Your task to perform on an android device: toggle priority inbox in the gmail app Image 0: 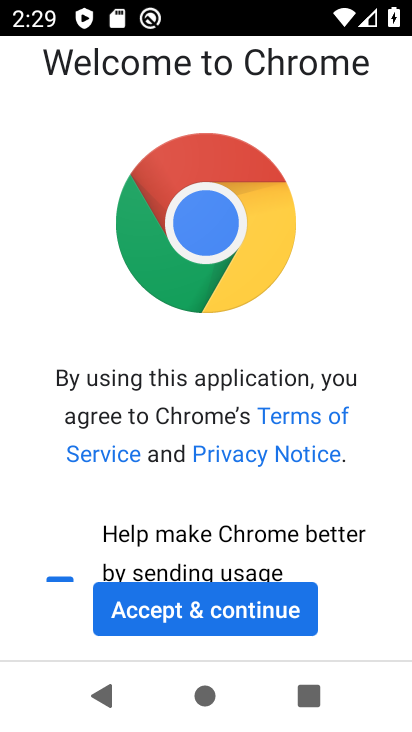
Step 0: press home button
Your task to perform on an android device: toggle priority inbox in the gmail app Image 1: 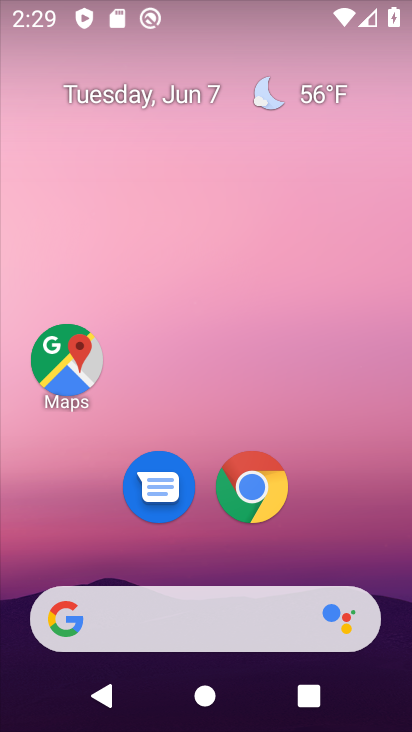
Step 1: drag from (310, 523) to (309, 469)
Your task to perform on an android device: toggle priority inbox in the gmail app Image 2: 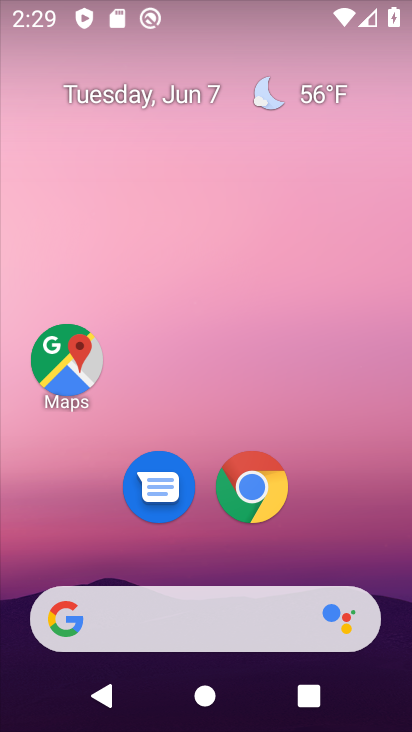
Step 2: drag from (347, 472) to (372, 16)
Your task to perform on an android device: toggle priority inbox in the gmail app Image 3: 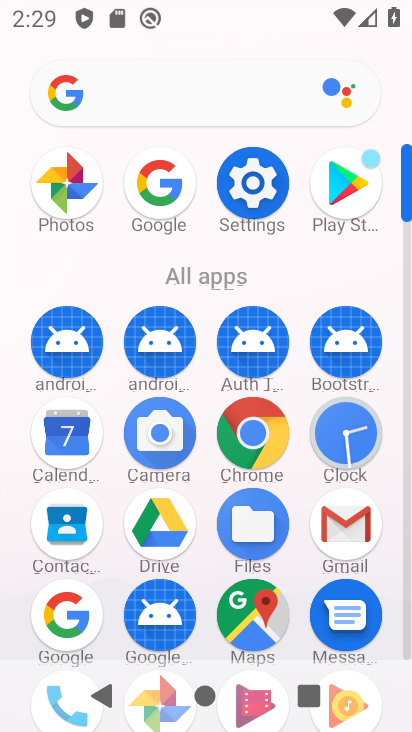
Step 3: click (332, 533)
Your task to perform on an android device: toggle priority inbox in the gmail app Image 4: 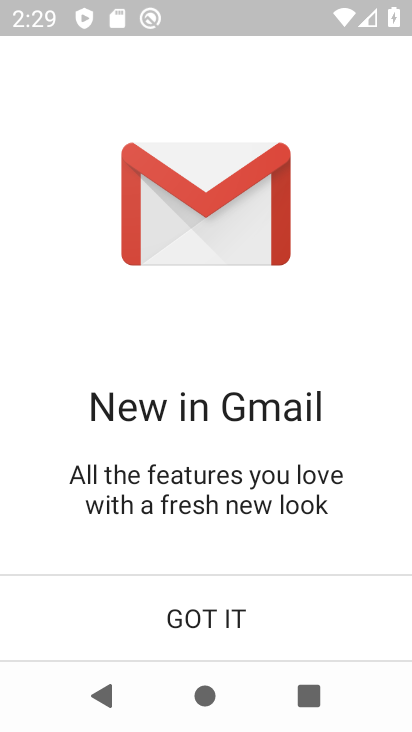
Step 4: click (198, 624)
Your task to perform on an android device: toggle priority inbox in the gmail app Image 5: 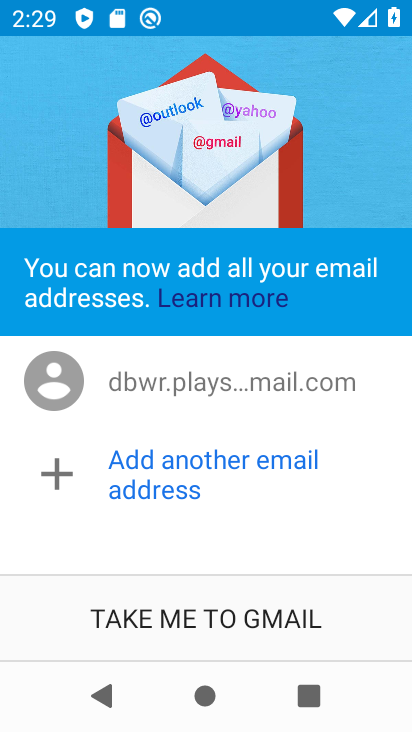
Step 5: click (313, 610)
Your task to perform on an android device: toggle priority inbox in the gmail app Image 6: 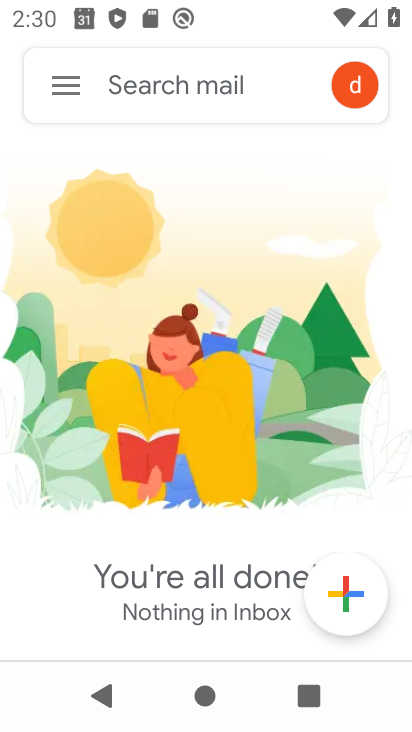
Step 6: press home button
Your task to perform on an android device: toggle priority inbox in the gmail app Image 7: 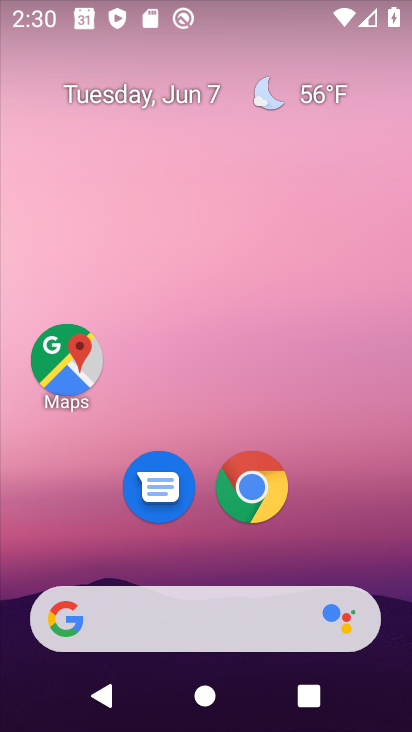
Step 7: drag from (358, 532) to (339, 134)
Your task to perform on an android device: toggle priority inbox in the gmail app Image 8: 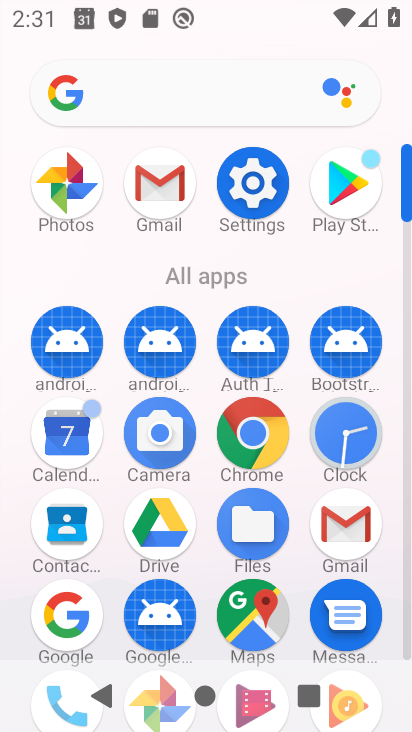
Step 8: click (148, 188)
Your task to perform on an android device: toggle priority inbox in the gmail app Image 9: 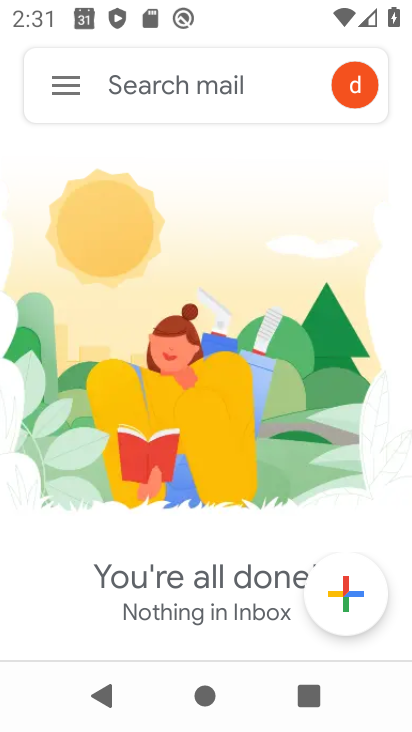
Step 9: click (69, 82)
Your task to perform on an android device: toggle priority inbox in the gmail app Image 10: 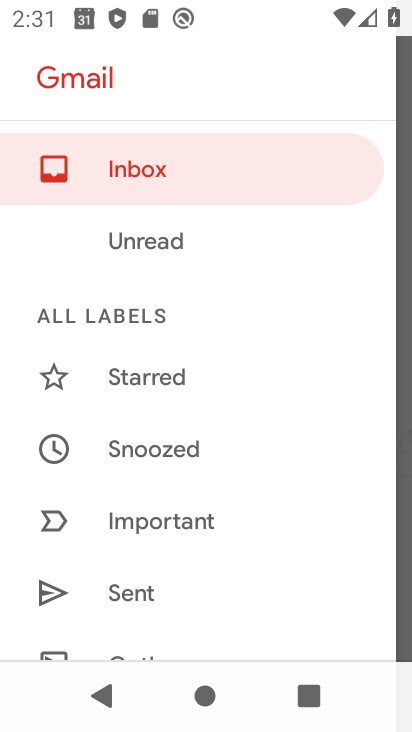
Step 10: drag from (251, 626) to (256, 173)
Your task to perform on an android device: toggle priority inbox in the gmail app Image 11: 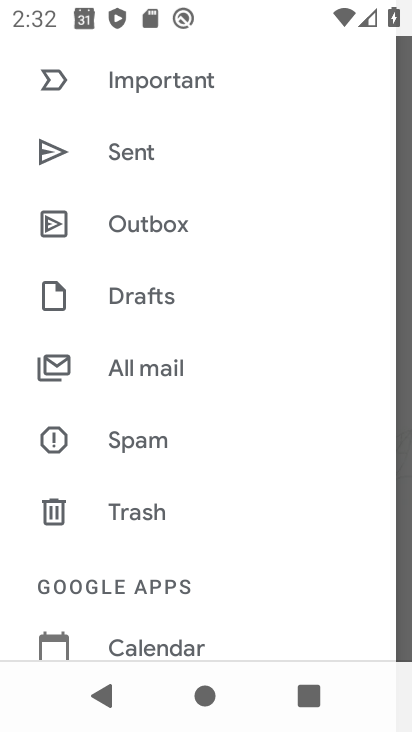
Step 11: drag from (317, 583) to (310, 320)
Your task to perform on an android device: toggle priority inbox in the gmail app Image 12: 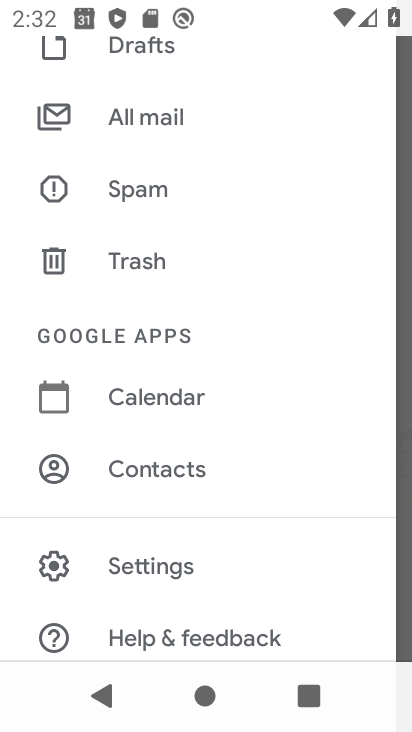
Step 12: click (148, 563)
Your task to perform on an android device: toggle priority inbox in the gmail app Image 13: 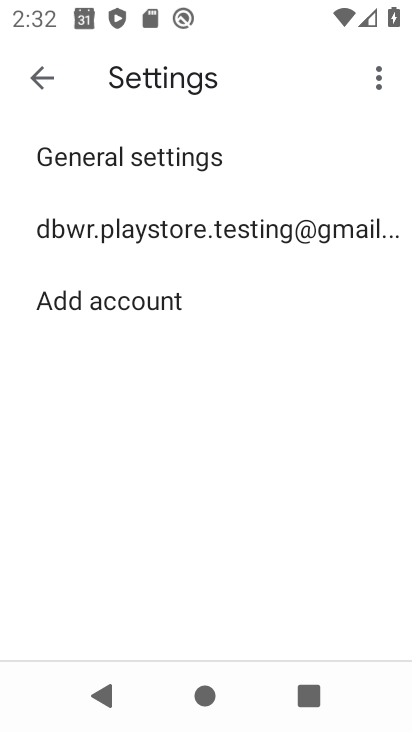
Step 13: click (125, 231)
Your task to perform on an android device: toggle priority inbox in the gmail app Image 14: 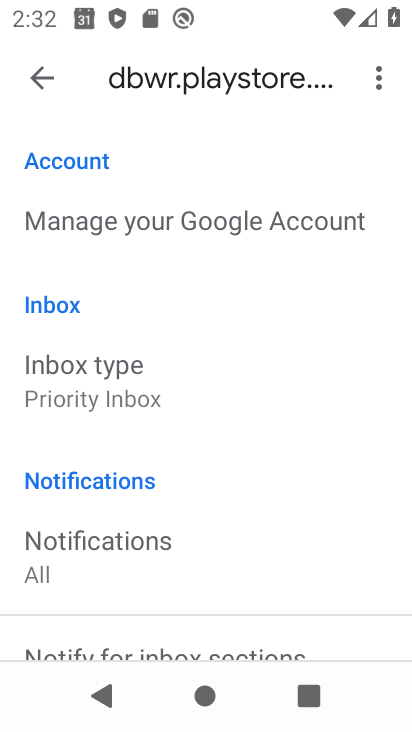
Step 14: click (128, 376)
Your task to perform on an android device: toggle priority inbox in the gmail app Image 15: 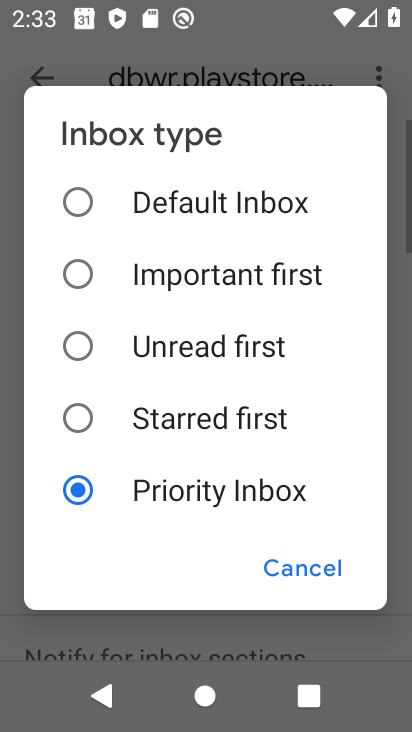
Step 15: click (109, 194)
Your task to perform on an android device: toggle priority inbox in the gmail app Image 16: 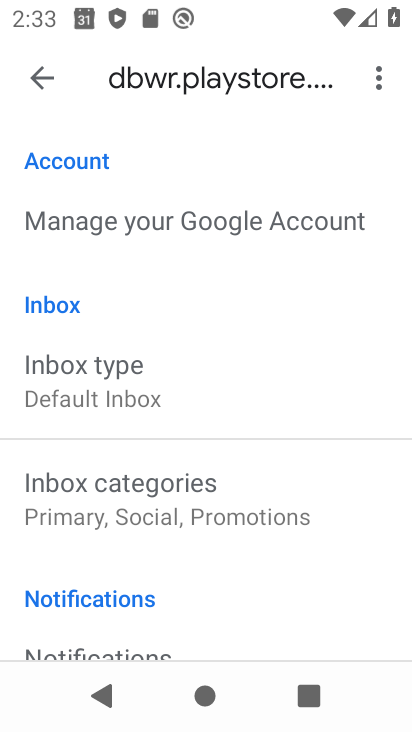
Step 16: task complete